Your task to perform on an android device: turn on data saver in the chrome app Image 0: 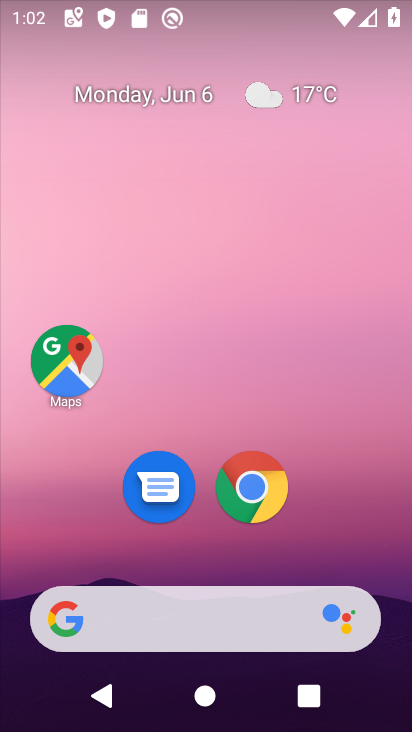
Step 0: click (262, 511)
Your task to perform on an android device: turn on data saver in the chrome app Image 1: 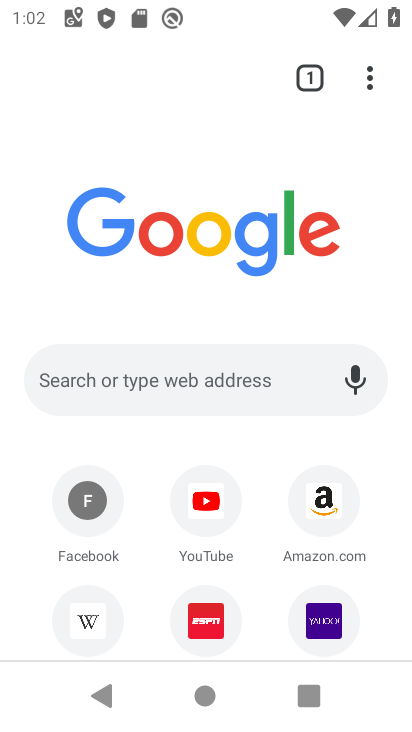
Step 1: drag from (371, 70) to (152, 563)
Your task to perform on an android device: turn on data saver in the chrome app Image 2: 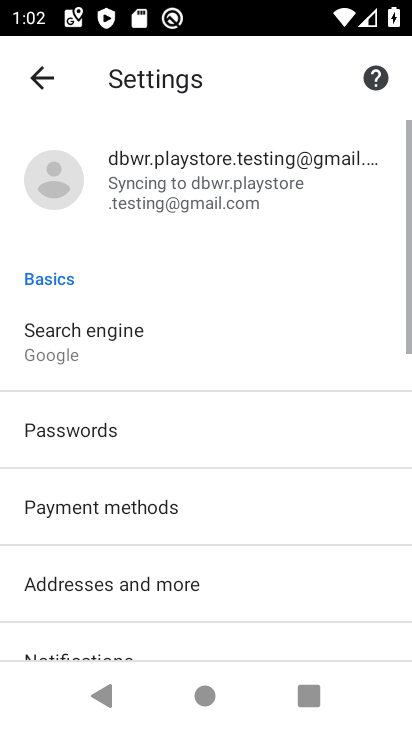
Step 2: drag from (153, 567) to (245, 405)
Your task to perform on an android device: turn on data saver in the chrome app Image 3: 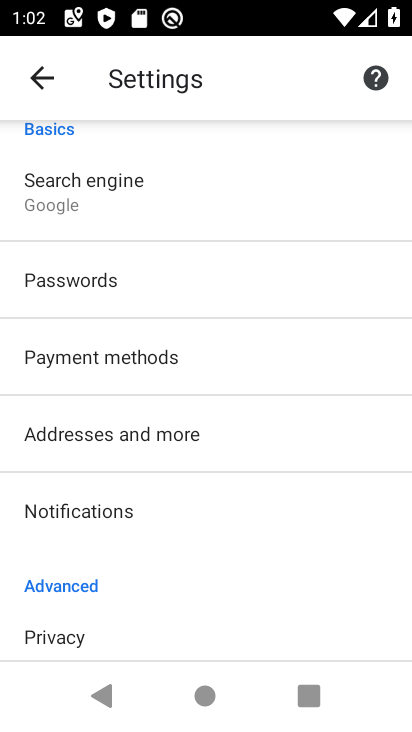
Step 3: drag from (179, 519) to (278, 163)
Your task to perform on an android device: turn on data saver in the chrome app Image 4: 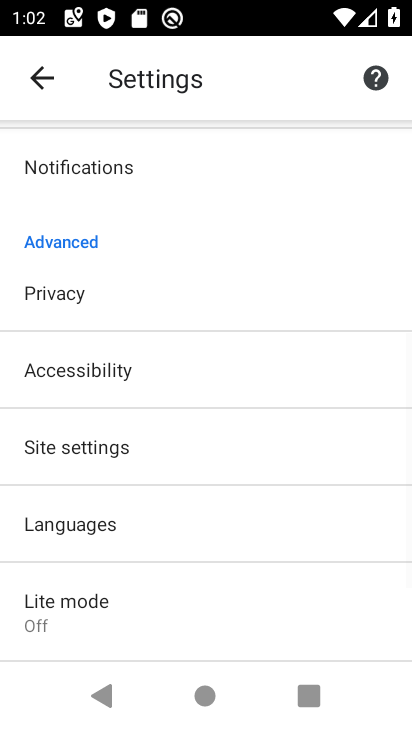
Step 4: click (163, 609)
Your task to perform on an android device: turn on data saver in the chrome app Image 5: 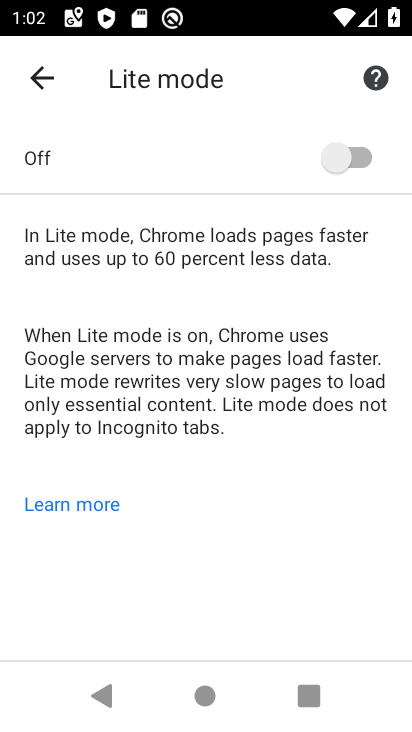
Step 5: click (375, 176)
Your task to perform on an android device: turn on data saver in the chrome app Image 6: 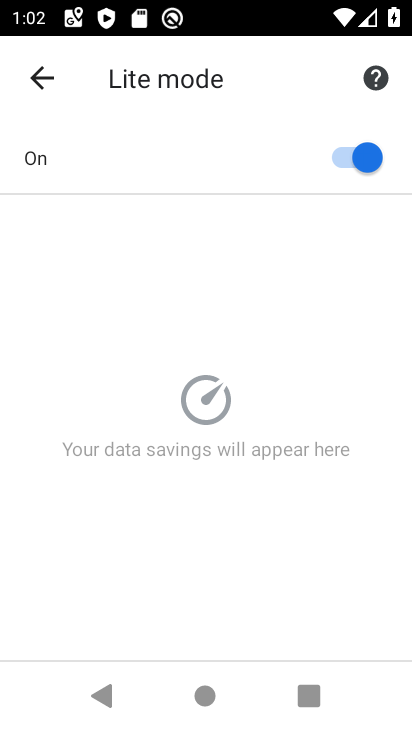
Step 6: task complete